Your task to perform on an android device: Open Maps and search for coffee Image 0: 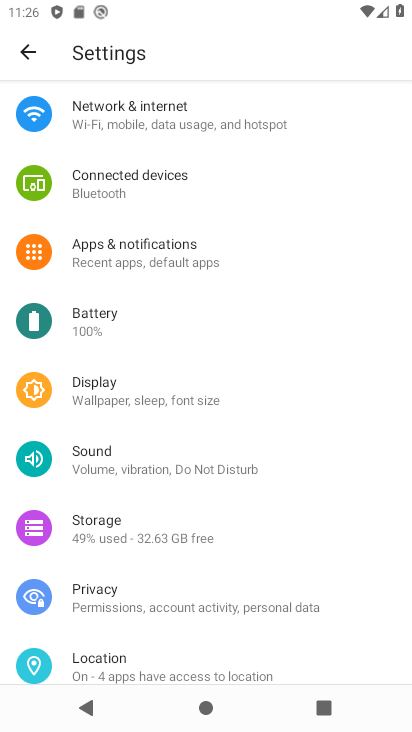
Step 0: press home button
Your task to perform on an android device: Open Maps and search for coffee Image 1: 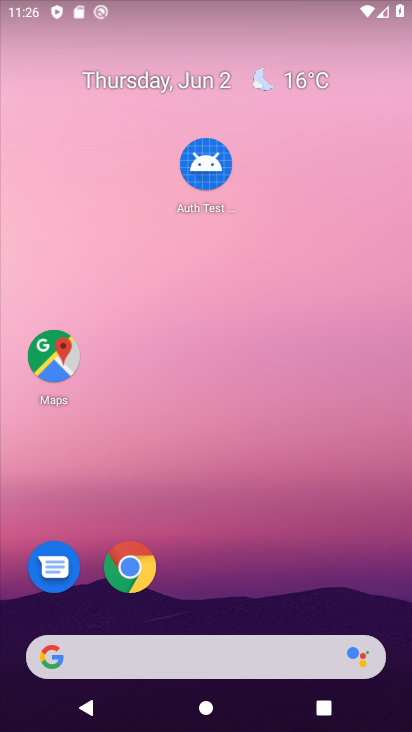
Step 1: click (49, 345)
Your task to perform on an android device: Open Maps and search for coffee Image 2: 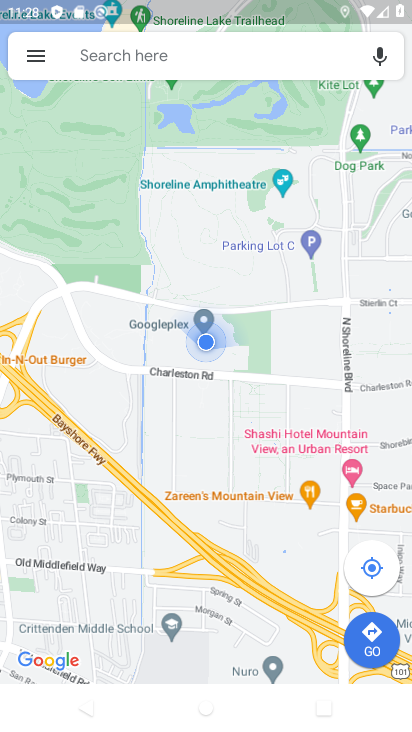
Step 2: click (164, 56)
Your task to perform on an android device: Open Maps and search for coffee Image 3: 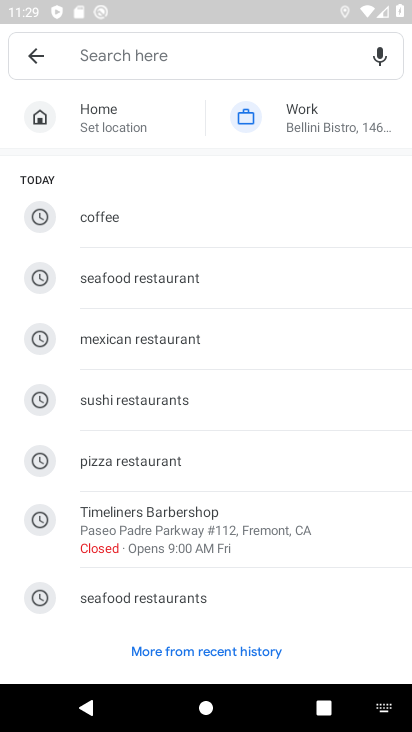
Step 3: click (69, 212)
Your task to perform on an android device: Open Maps and search for coffee Image 4: 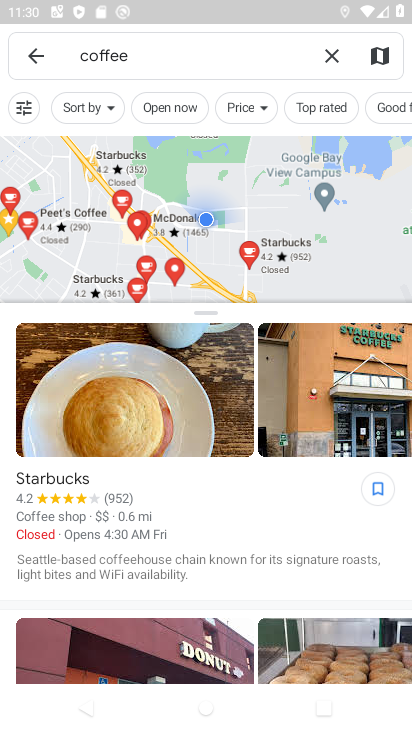
Step 4: task complete